Your task to perform on an android device: Go to Android settings Image 0: 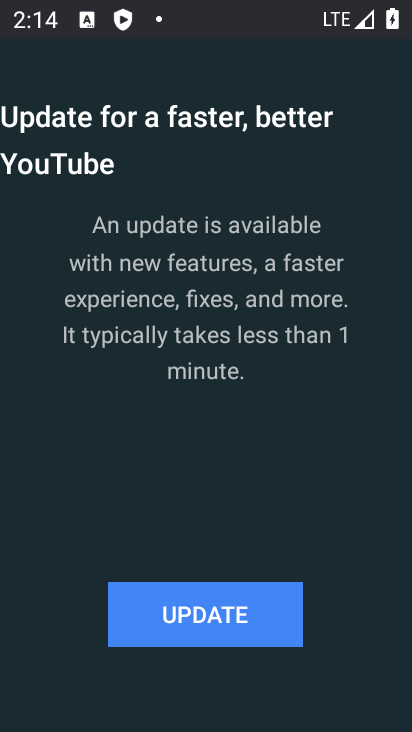
Step 0: press home button
Your task to perform on an android device: Go to Android settings Image 1: 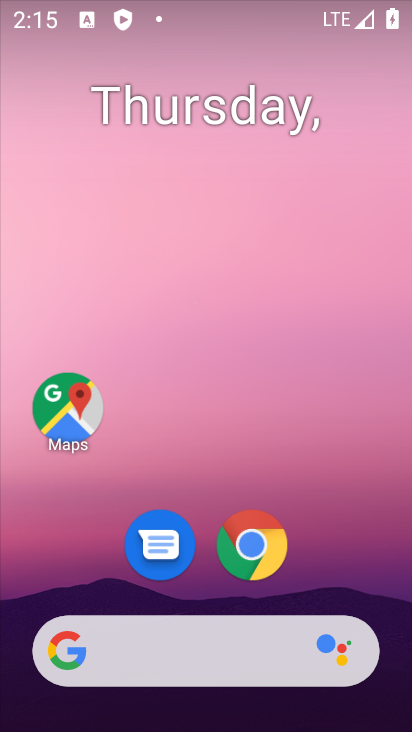
Step 1: drag from (177, 605) to (233, 0)
Your task to perform on an android device: Go to Android settings Image 2: 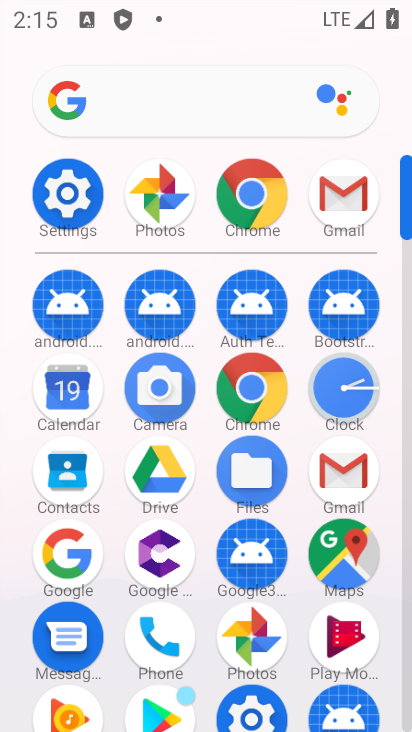
Step 2: click (75, 195)
Your task to perform on an android device: Go to Android settings Image 3: 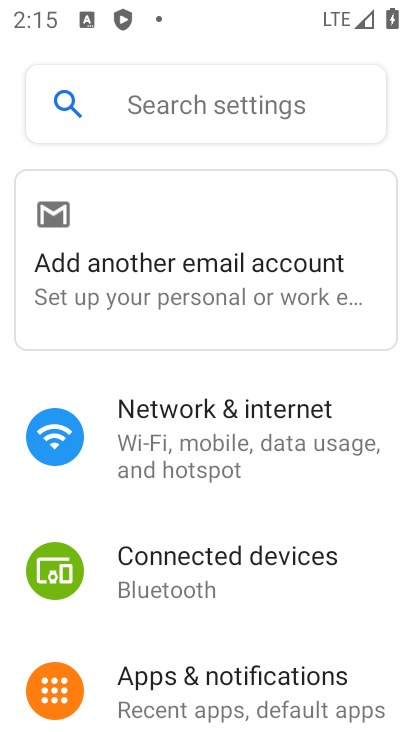
Step 3: drag from (257, 608) to (223, 177)
Your task to perform on an android device: Go to Android settings Image 4: 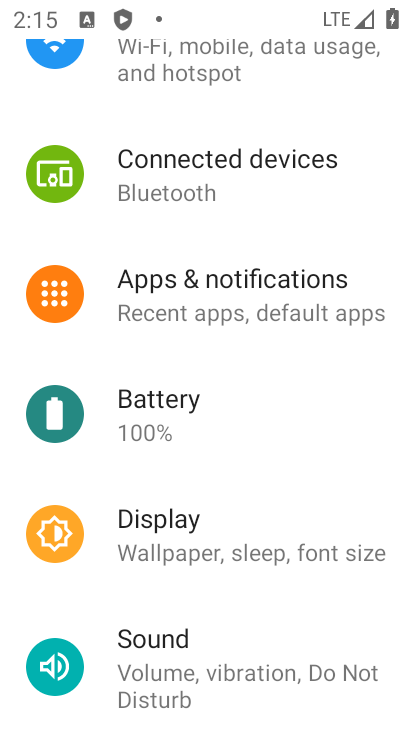
Step 4: drag from (280, 697) to (304, 126)
Your task to perform on an android device: Go to Android settings Image 5: 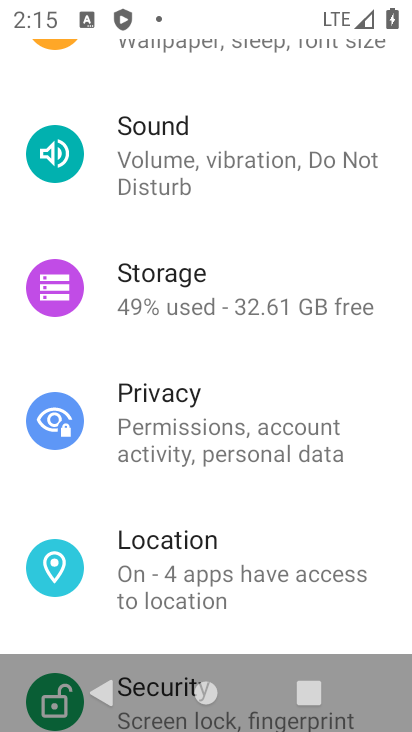
Step 5: drag from (284, 602) to (281, 62)
Your task to perform on an android device: Go to Android settings Image 6: 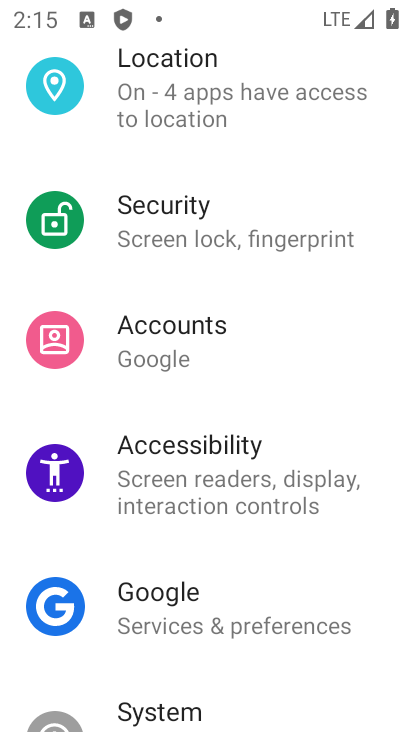
Step 6: drag from (304, 661) to (339, 109)
Your task to perform on an android device: Go to Android settings Image 7: 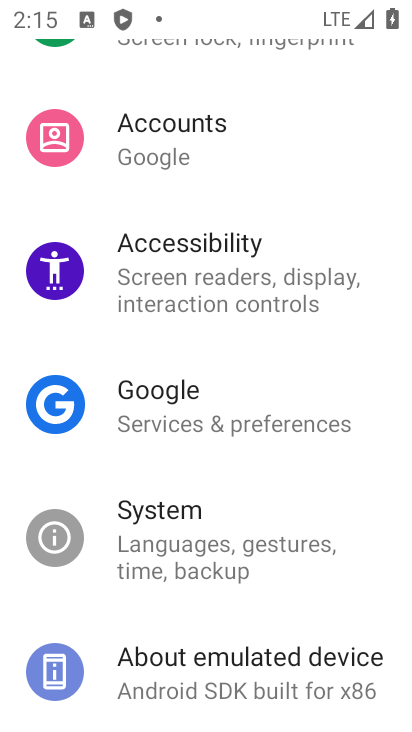
Step 7: click (218, 685)
Your task to perform on an android device: Go to Android settings Image 8: 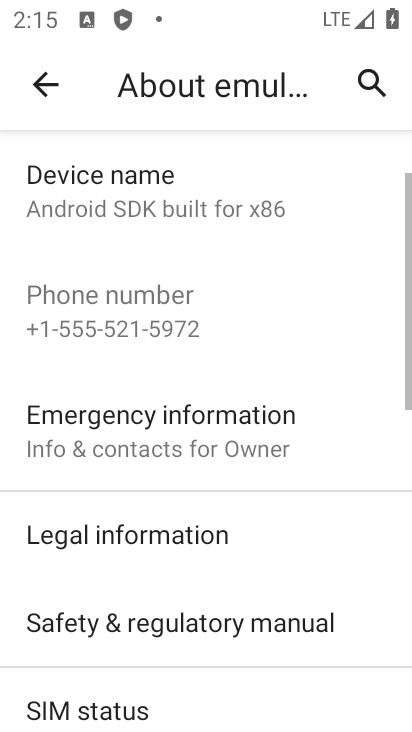
Step 8: drag from (180, 658) to (201, 153)
Your task to perform on an android device: Go to Android settings Image 9: 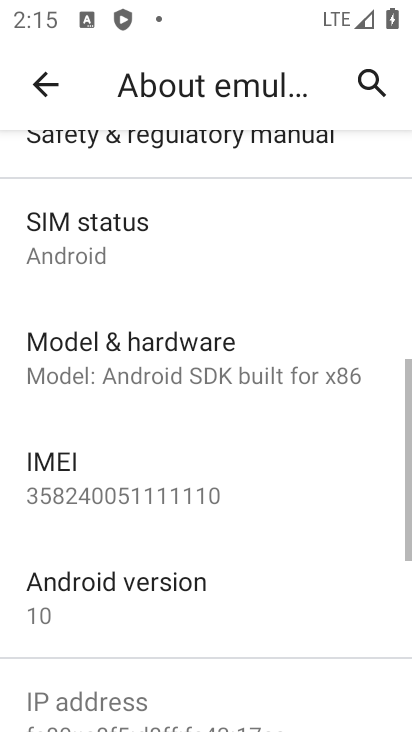
Step 9: click (215, 599)
Your task to perform on an android device: Go to Android settings Image 10: 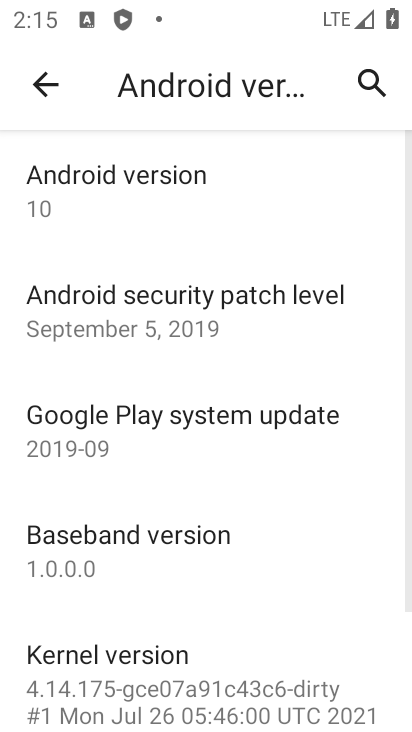
Step 10: task complete